Your task to perform on an android device: turn on the 12-hour format for clock Image 0: 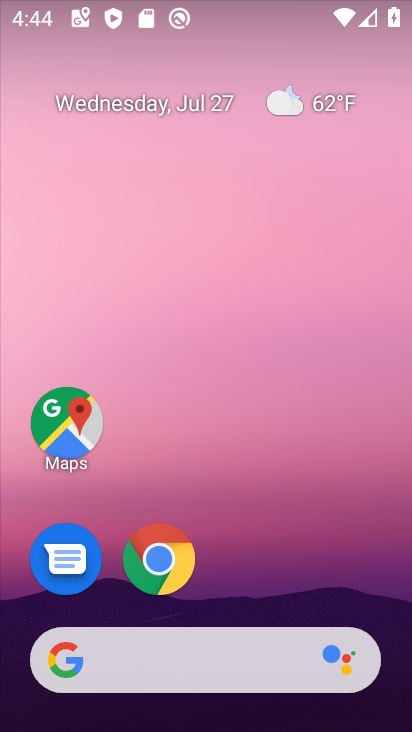
Step 0: drag from (278, 456) to (309, 62)
Your task to perform on an android device: turn on the 12-hour format for clock Image 1: 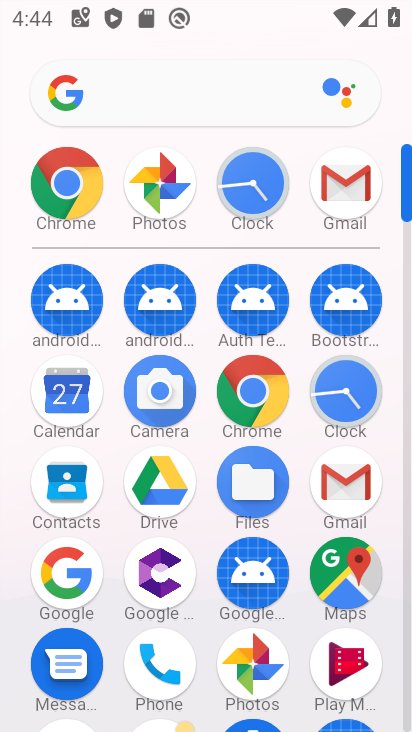
Step 1: click (244, 176)
Your task to perform on an android device: turn on the 12-hour format for clock Image 2: 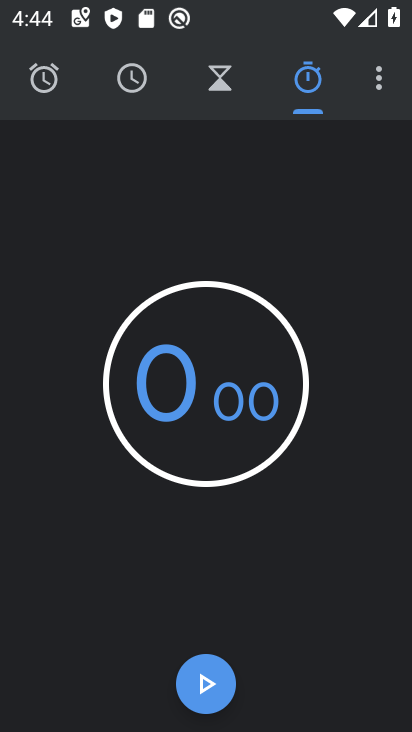
Step 2: click (375, 70)
Your task to perform on an android device: turn on the 12-hour format for clock Image 3: 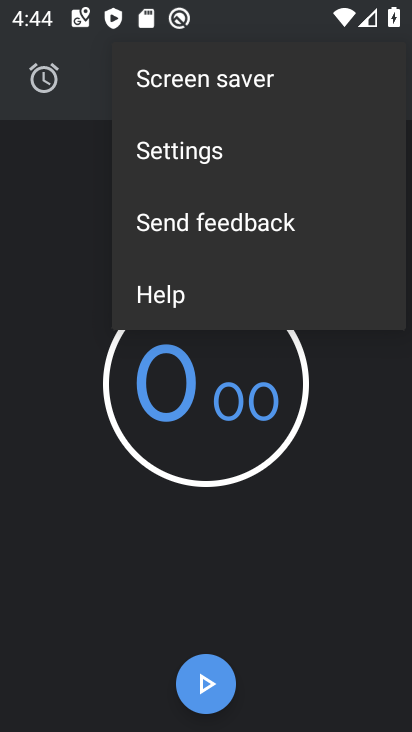
Step 3: click (223, 145)
Your task to perform on an android device: turn on the 12-hour format for clock Image 4: 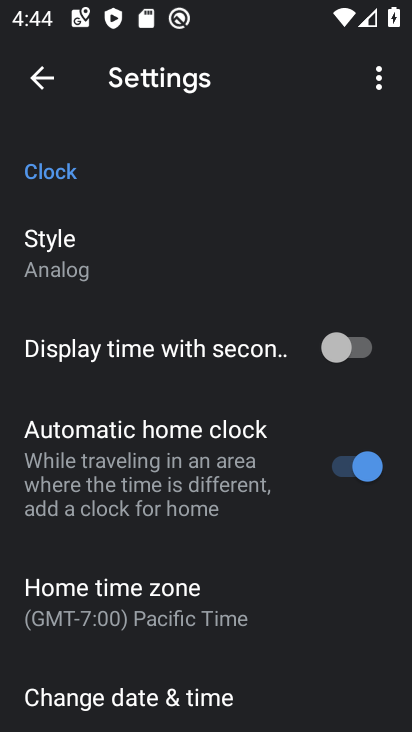
Step 4: click (168, 698)
Your task to perform on an android device: turn on the 12-hour format for clock Image 5: 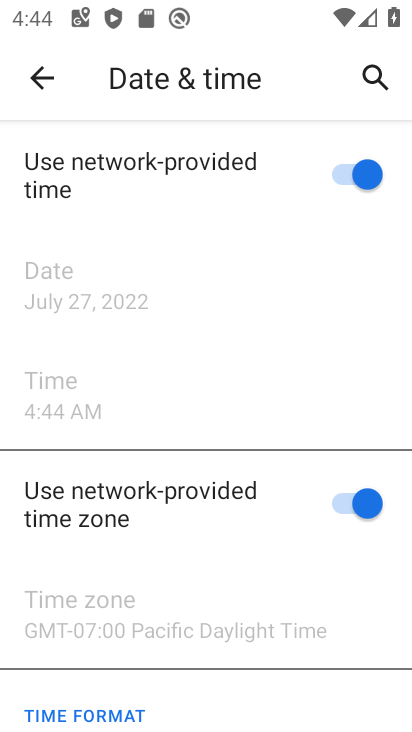
Step 5: task complete